Your task to perform on an android device: check storage Image 0: 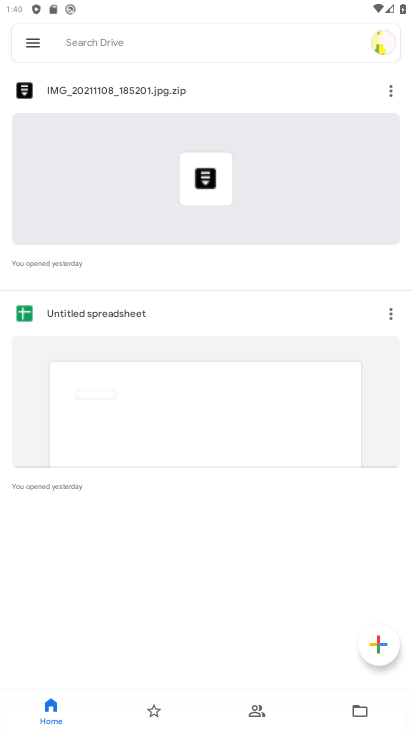
Step 0: press home button
Your task to perform on an android device: check storage Image 1: 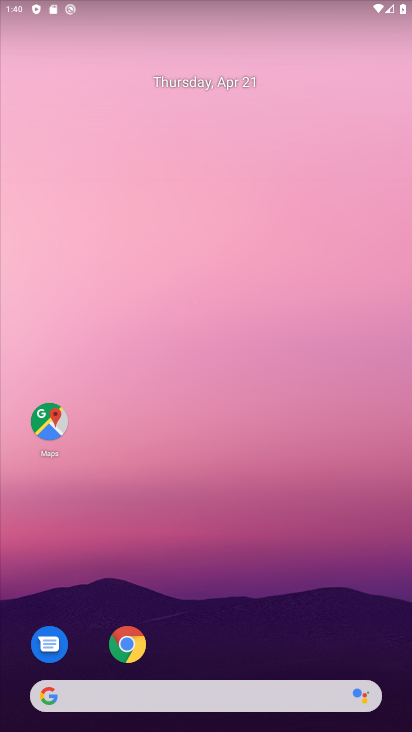
Step 1: drag from (226, 619) to (148, 148)
Your task to perform on an android device: check storage Image 2: 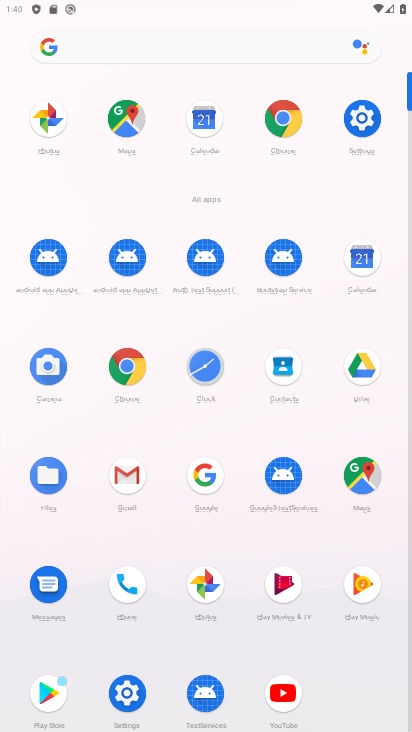
Step 2: click (369, 135)
Your task to perform on an android device: check storage Image 3: 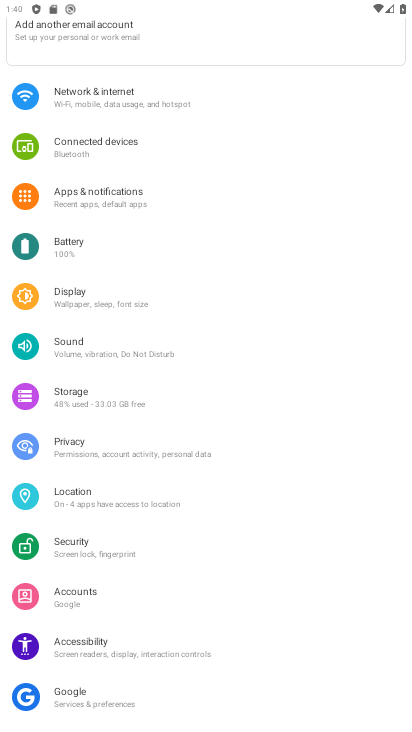
Step 3: click (172, 404)
Your task to perform on an android device: check storage Image 4: 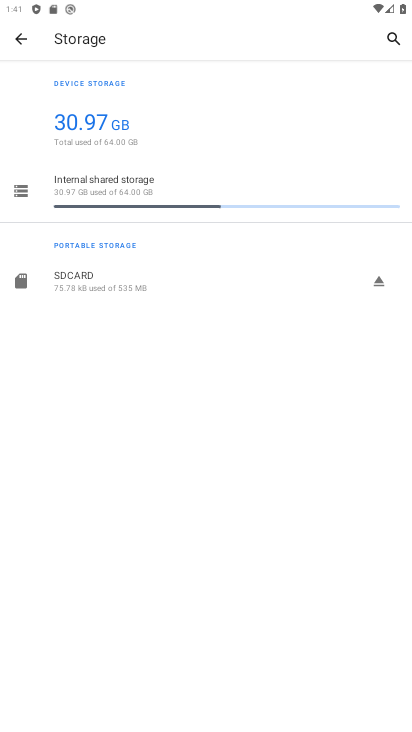
Step 4: task complete